Your task to perform on an android device: What's the weather? Image 0: 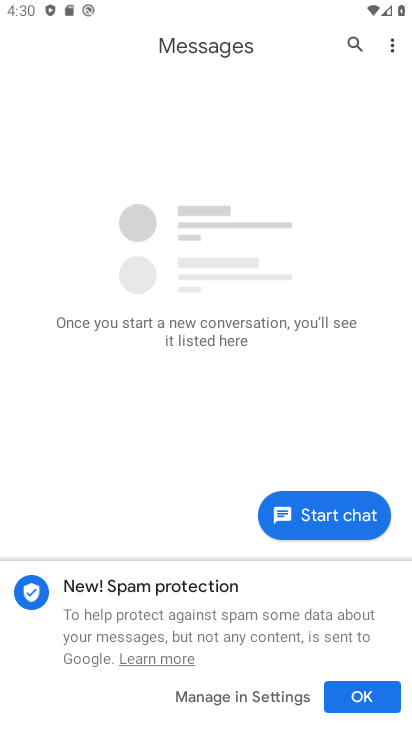
Step 0: press home button
Your task to perform on an android device: What's the weather? Image 1: 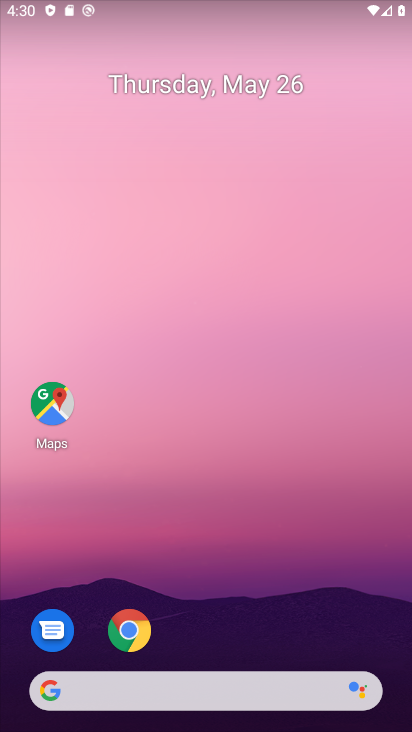
Step 1: drag from (174, 676) to (223, 272)
Your task to perform on an android device: What's the weather? Image 2: 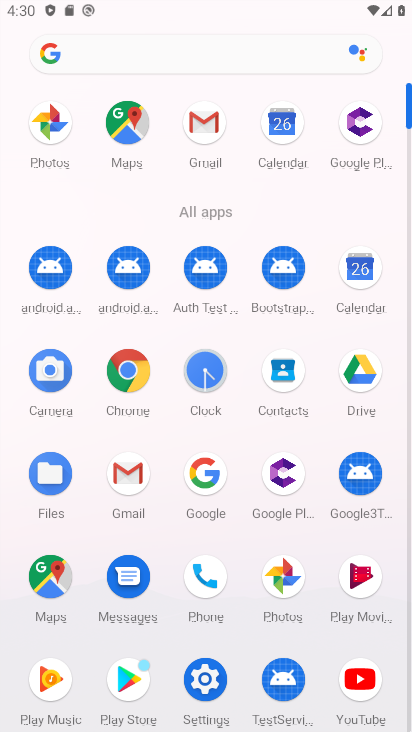
Step 2: click (206, 477)
Your task to perform on an android device: What's the weather? Image 3: 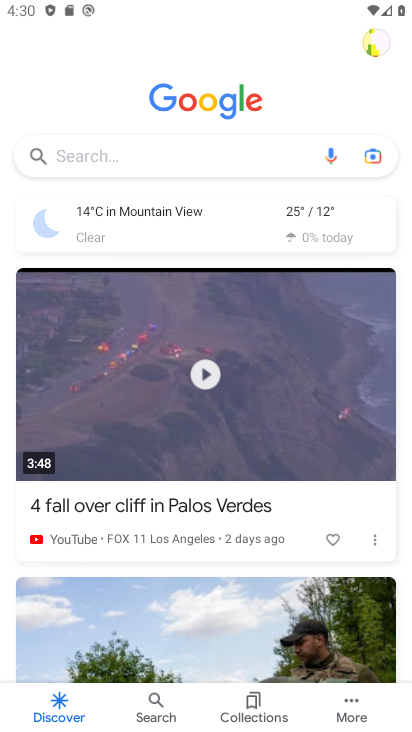
Step 3: click (138, 224)
Your task to perform on an android device: What's the weather? Image 4: 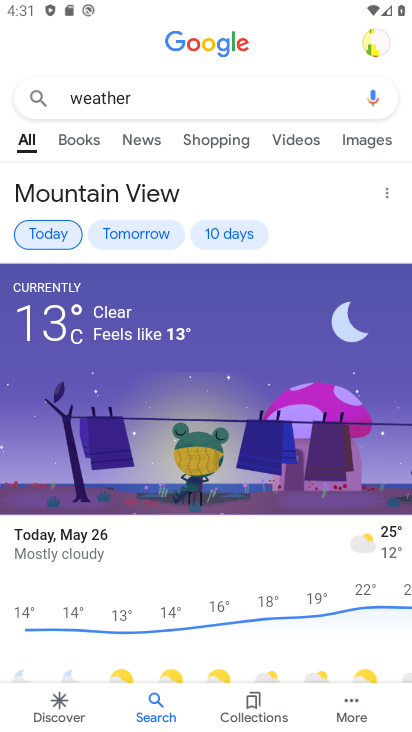
Step 4: task complete